Your task to perform on an android device: Play the last video I watched on Youtube Image 0: 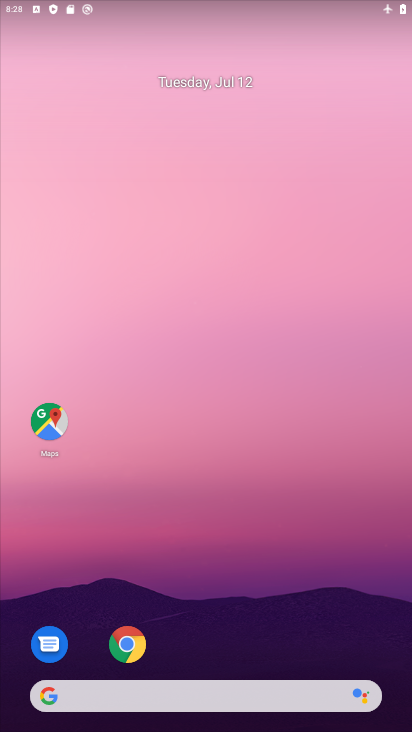
Step 0: drag from (399, 641) to (337, 186)
Your task to perform on an android device: Play the last video I watched on Youtube Image 1: 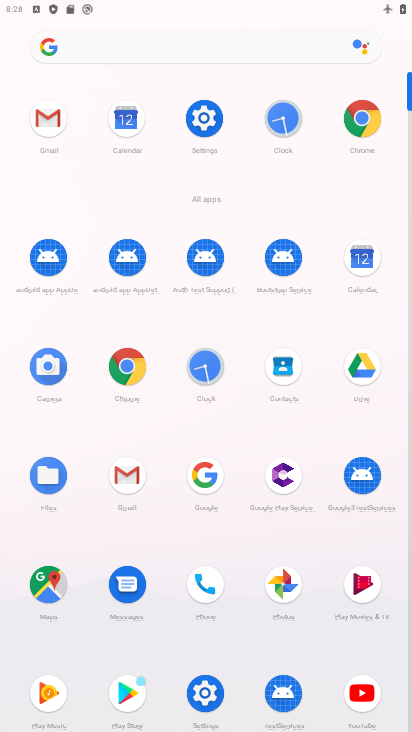
Step 1: click (360, 692)
Your task to perform on an android device: Play the last video I watched on Youtube Image 2: 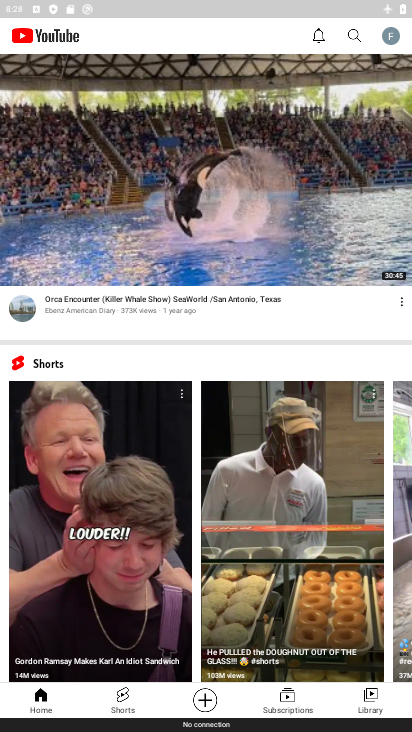
Step 2: click (381, 694)
Your task to perform on an android device: Play the last video I watched on Youtube Image 3: 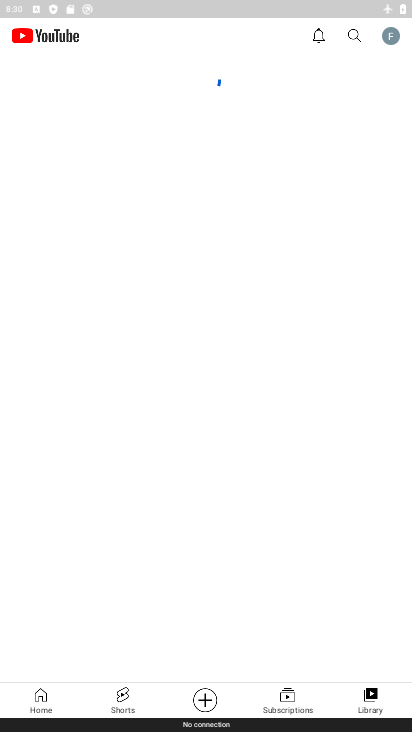
Step 3: task complete